Your task to perform on an android device: Open Google Chrome and click the shortcut for Amazon.com Image 0: 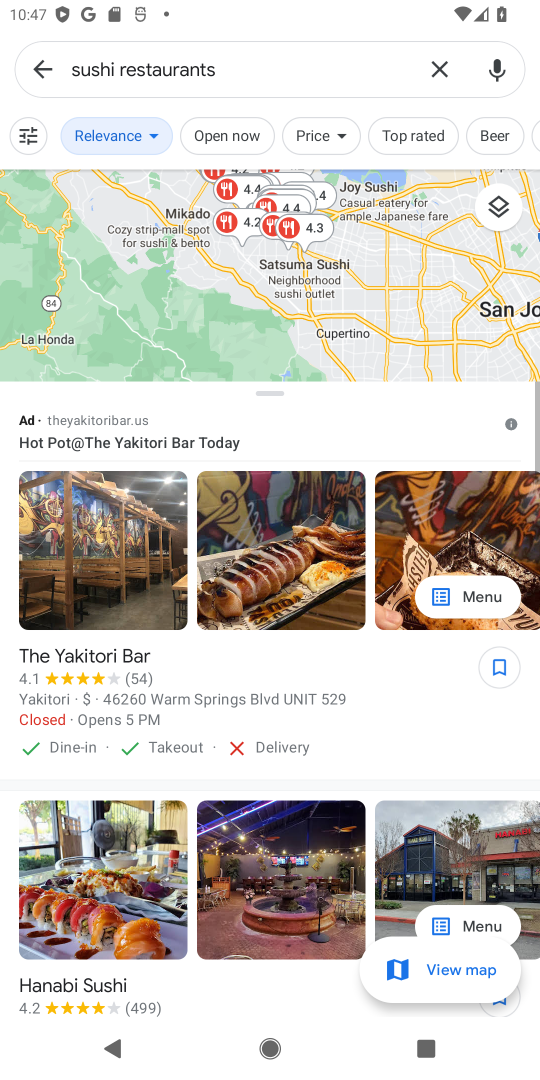
Step 0: press home button
Your task to perform on an android device: Open Google Chrome and click the shortcut for Amazon.com Image 1: 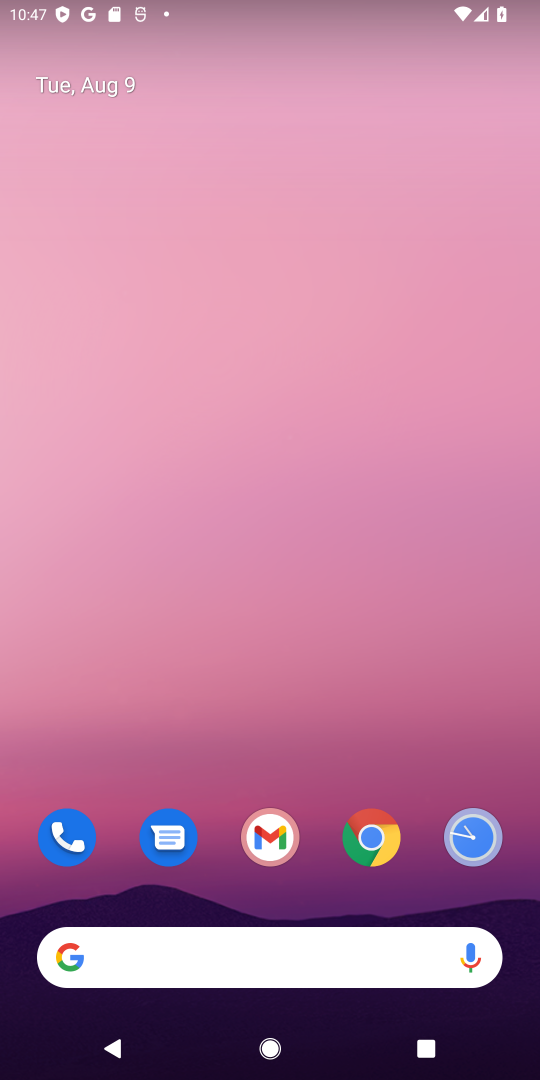
Step 1: click (371, 837)
Your task to perform on an android device: Open Google Chrome and click the shortcut for Amazon.com Image 2: 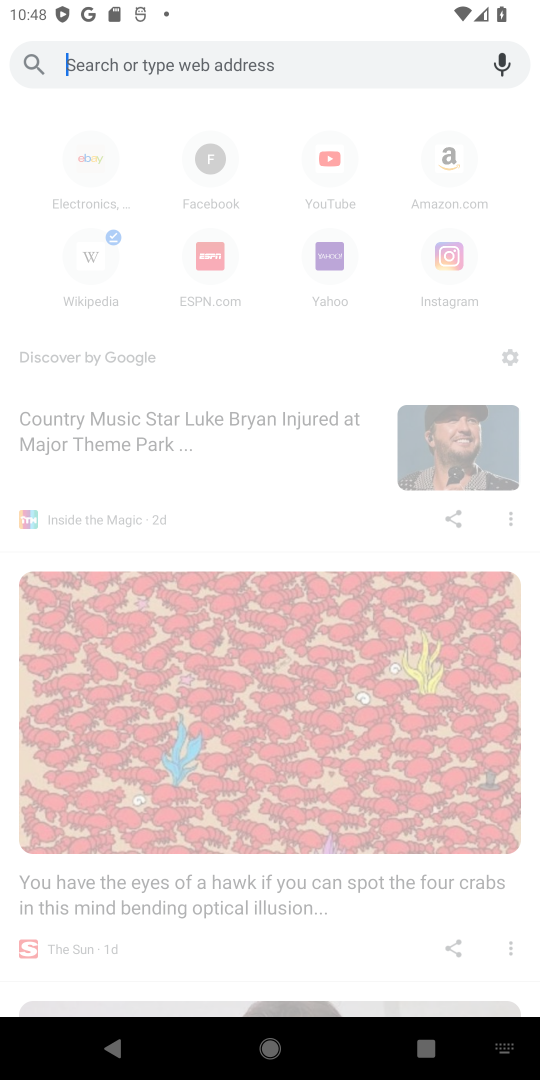
Step 2: click (148, 128)
Your task to perform on an android device: Open Google Chrome and click the shortcut for Amazon.com Image 3: 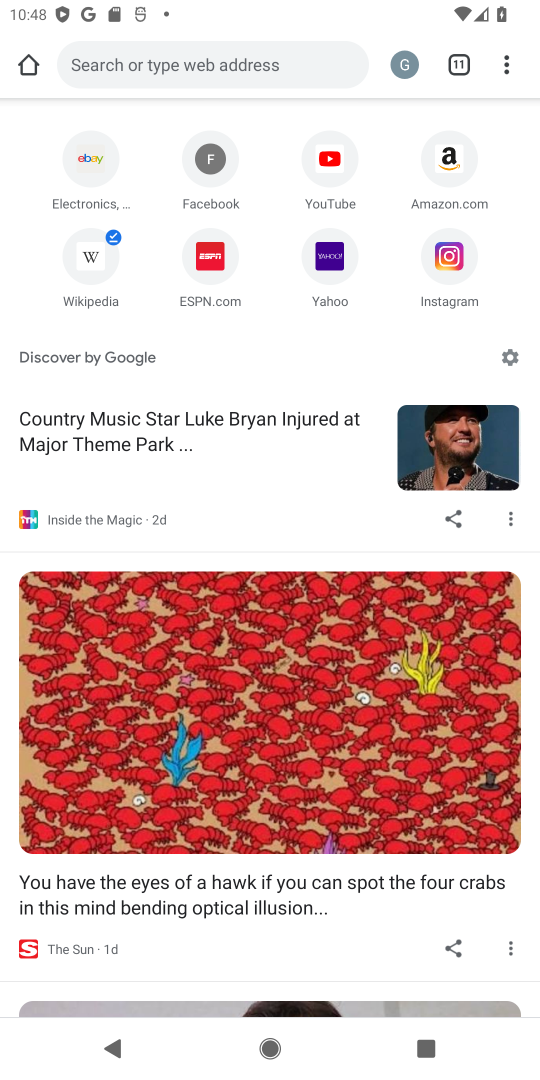
Step 3: click (463, 160)
Your task to perform on an android device: Open Google Chrome and click the shortcut for Amazon.com Image 4: 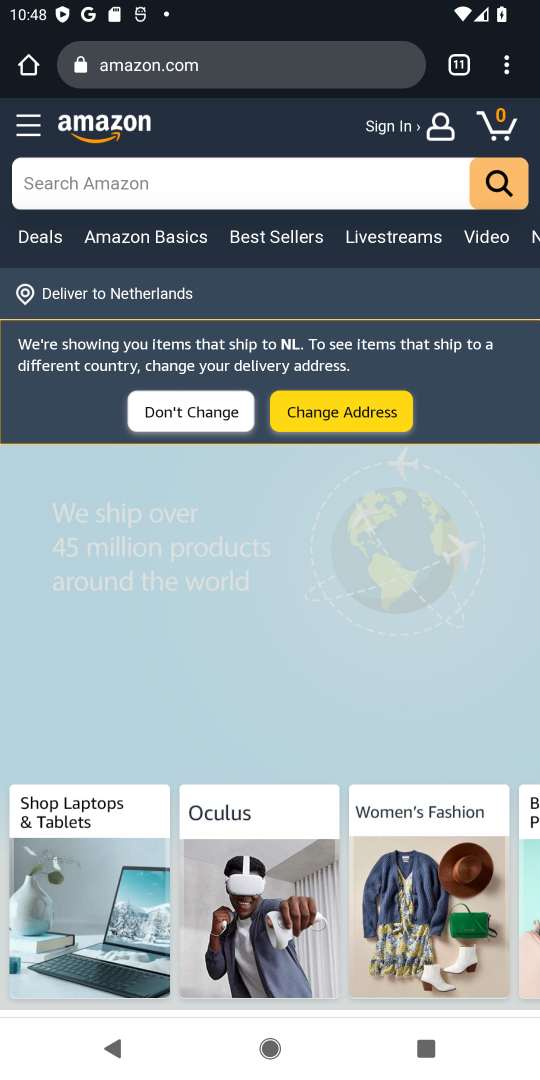
Step 4: task complete